Your task to perform on an android device: Open Google Chrome and open the bookmarks view Image 0: 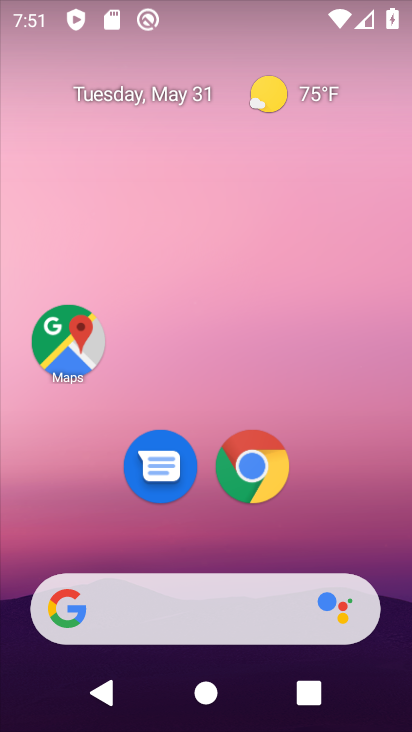
Step 0: drag from (198, 356) to (214, 184)
Your task to perform on an android device: Open Google Chrome and open the bookmarks view Image 1: 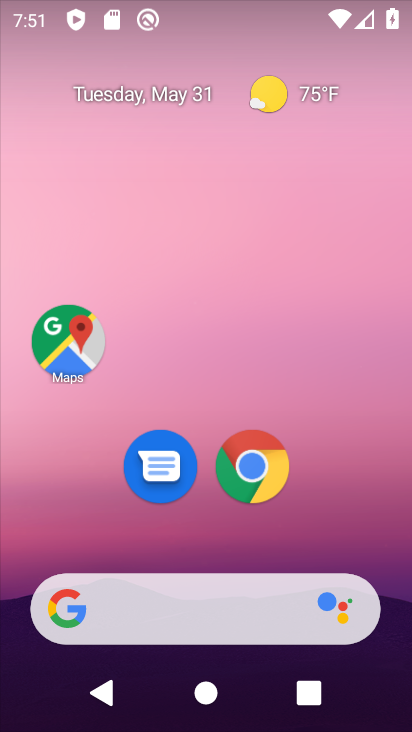
Step 1: click (251, 466)
Your task to perform on an android device: Open Google Chrome and open the bookmarks view Image 2: 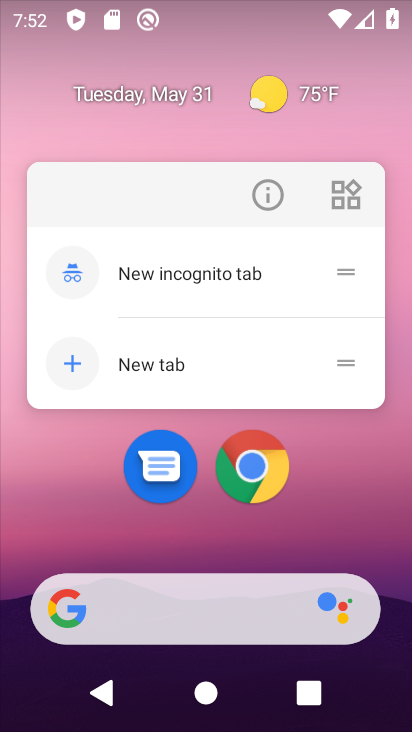
Step 2: click (263, 192)
Your task to perform on an android device: Open Google Chrome and open the bookmarks view Image 3: 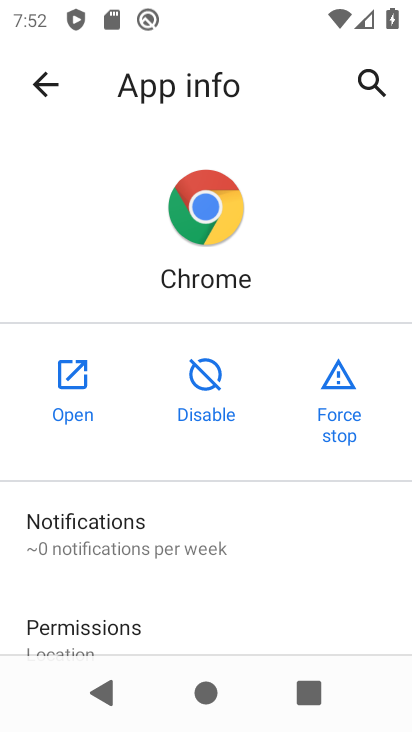
Step 3: click (71, 381)
Your task to perform on an android device: Open Google Chrome and open the bookmarks view Image 4: 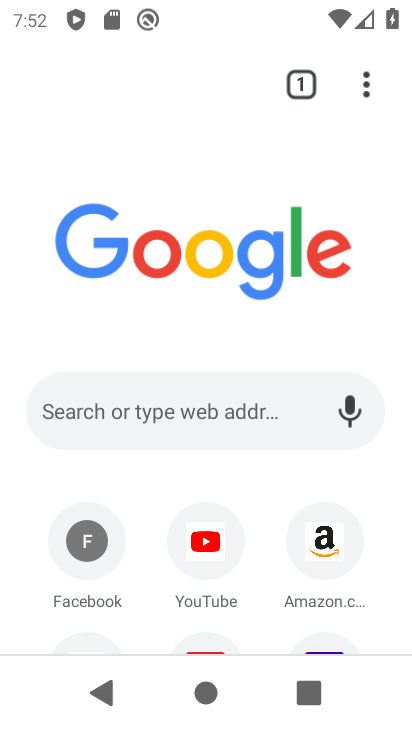
Step 4: drag from (358, 72) to (166, 329)
Your task to perform on an android device: Open Google Chrome and open the bookmarks view Image 5: 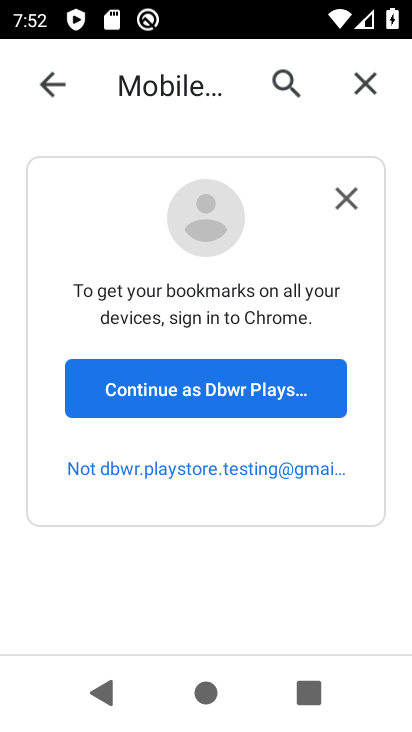
Step 5: click (292, 186)
Your task to perform on an android device: Open Google Chrome and open the bookmarks view Image 6: 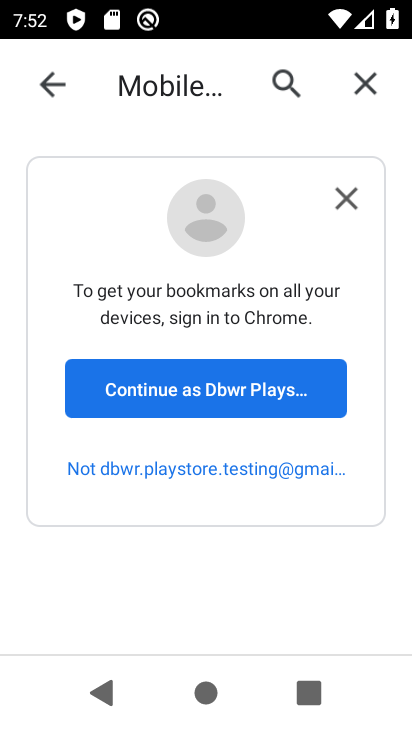
Step 6: task complete